Your task to perform on an android device: remove spam from my inbox in the gmail app Image 0: 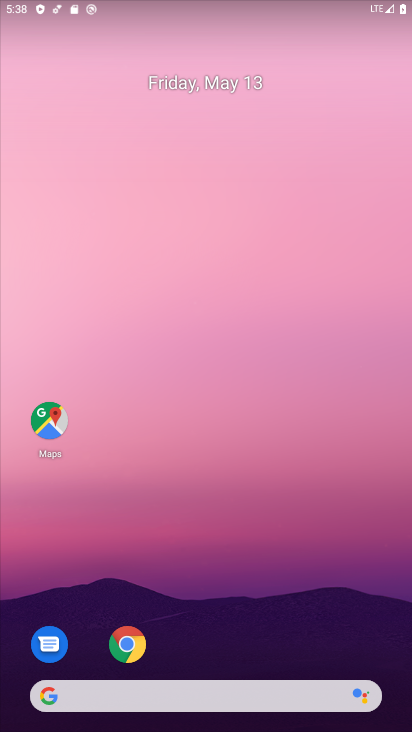
Step 0: drag from (230, 563) to (320, 64)
Your task to perform on an android device: remove spam from my inbox in the gmail app Image 1: 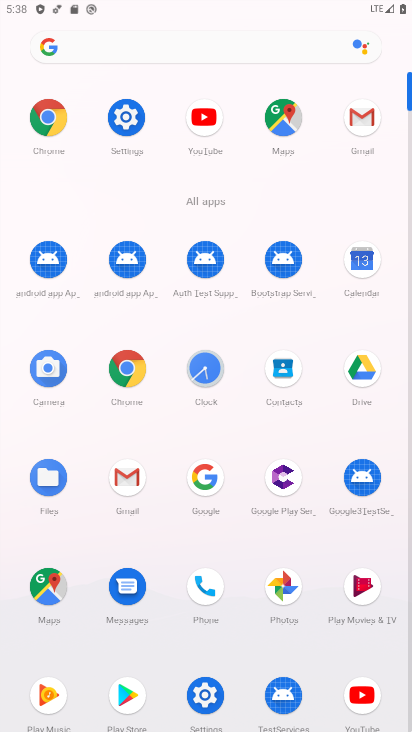
Step 1: click (127, 489)
Your task to perform on an android device: remove spam from my inbox in the gmail app Image 2: 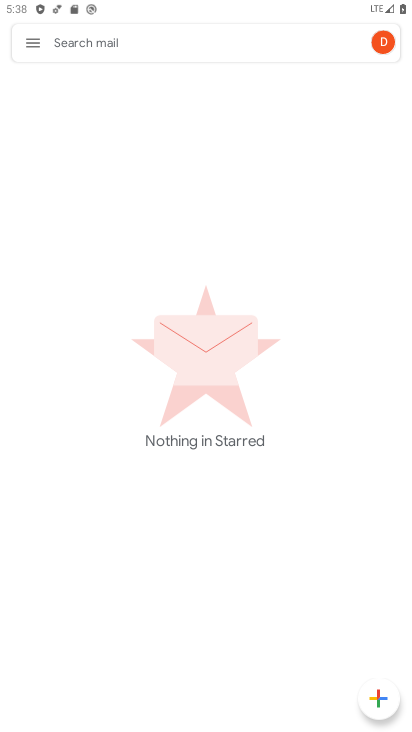
Step 2: click (33, 37)
Your task to perform on an android device: remove spam from my inbox in the gmail app Image 3: 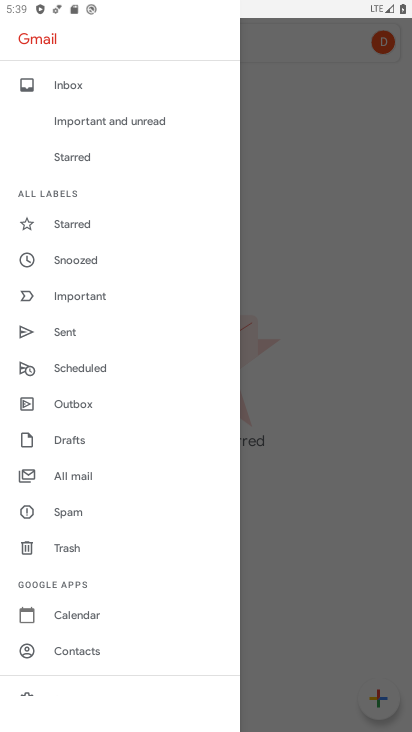
Step 3: click (80, 509)
Your task to perform on an android device: remove spam from my inbox in the gmail app Image 4: 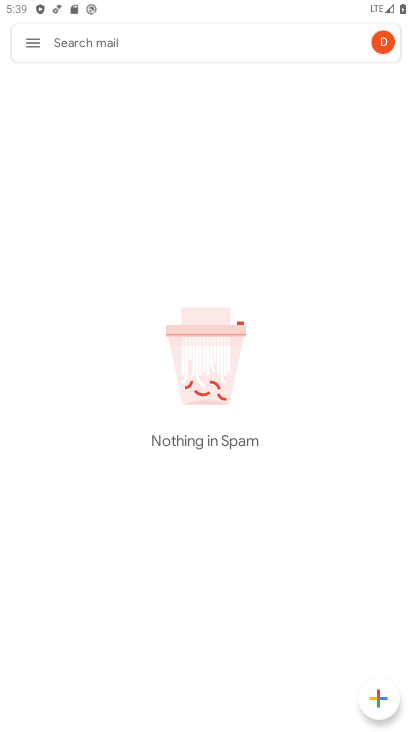
Step 4: task complete